Your task to perform on an android device: turn off wifi Image 0: 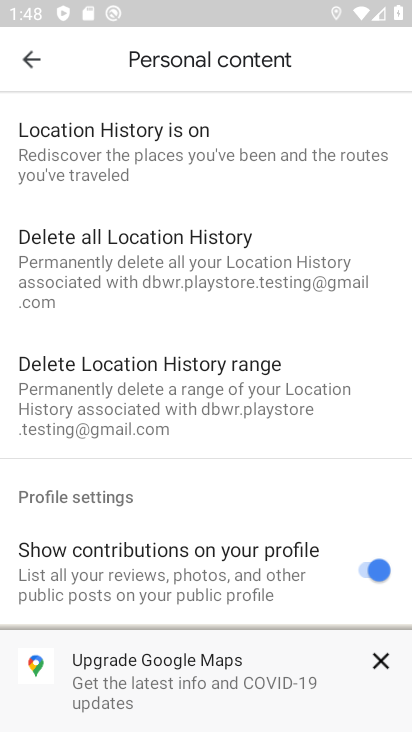
Step 0: press home button
Your task to perform on an android device: turn off wifi Image 1: 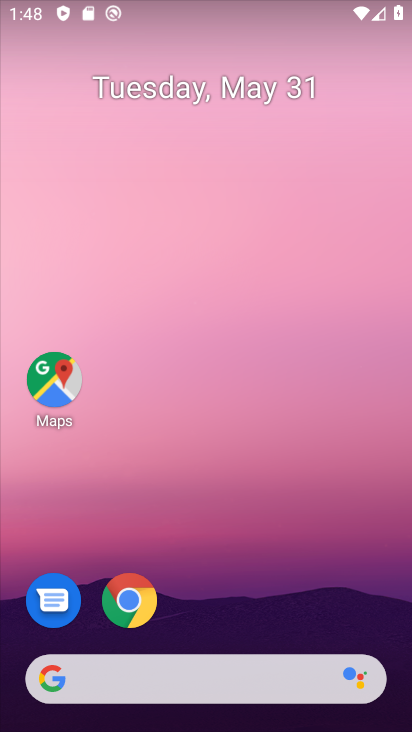
Step 1: drag from (241, 98) to (249, 26)
Your task to perform on an android device: turn off wifi Image 2: 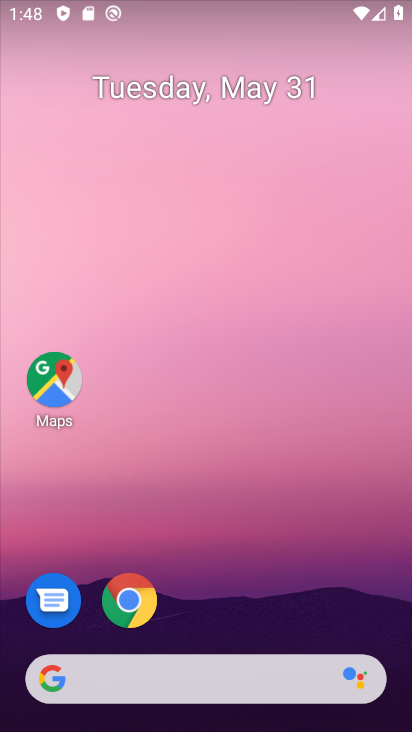
Step 2: drag from (209, 634) to (207, 65)
Your task to perform on an android device: turn off wifi Image 3: 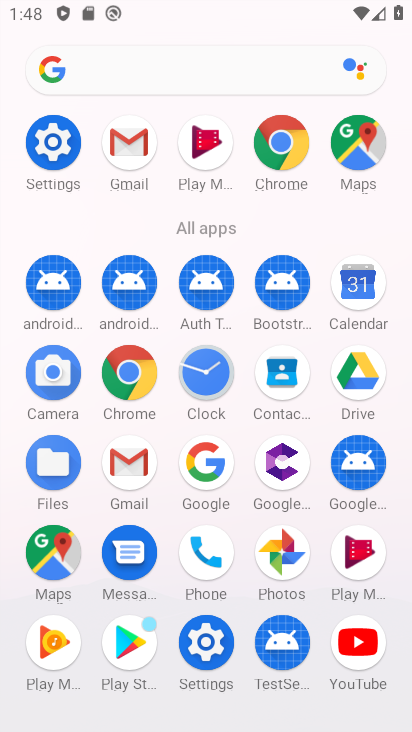
Step 3: click (48, 132)
Your task to perform on an android device: turn off wifi Image 4: 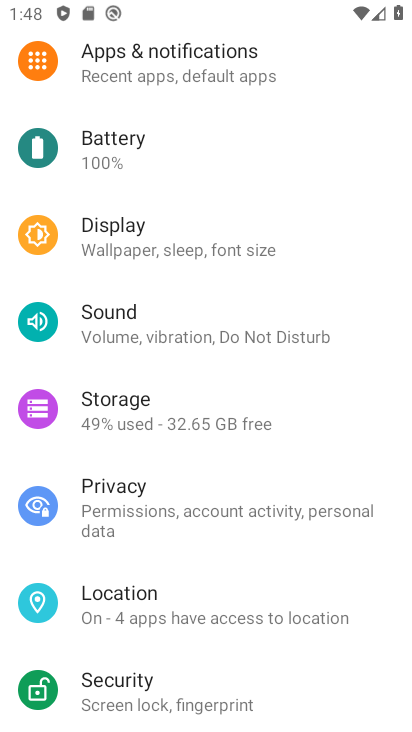
Step 4: drag from (183, 95) to (197, 642)
Your task to perform on an android device: turn off wifi Image 5: 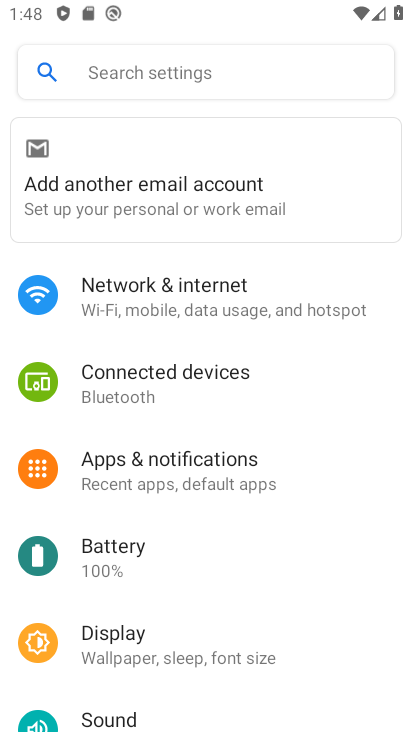
Step 5: click (179, 299)
Your task to perform on an android device: turn off wifi Image 6: 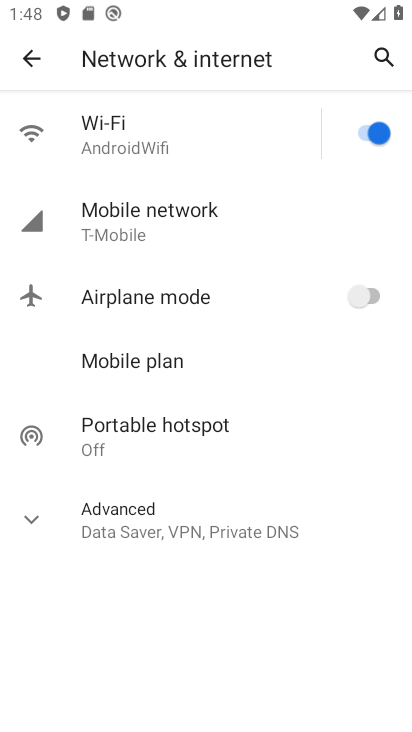
Step 6: click (368, 125)
Your task to perform on an android device: turn off wifi Image 7: 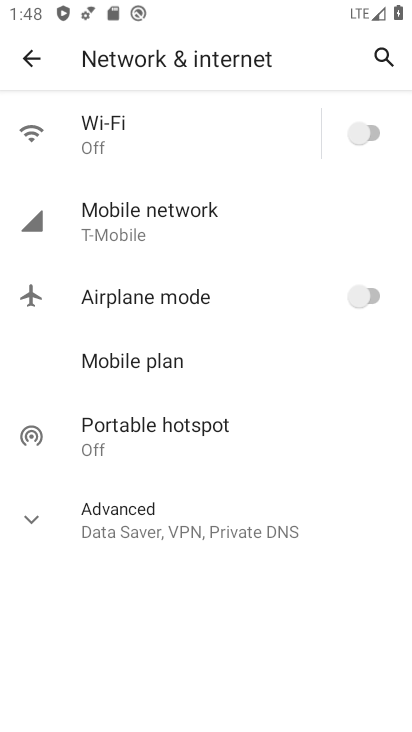
Step 7: task complete